Your task to perform on an android device: Open battery settings Image 0: 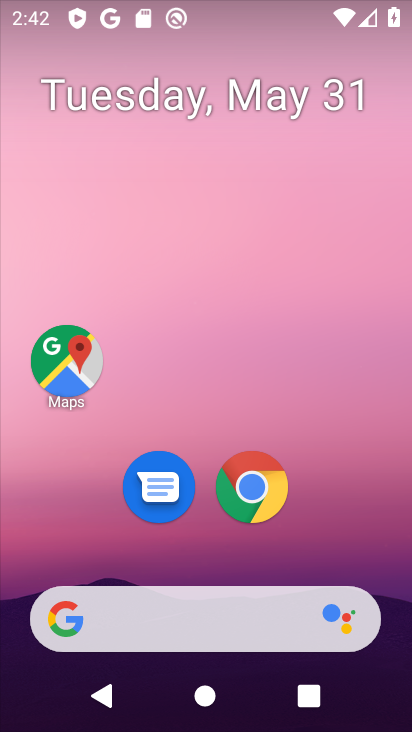
Step 0: drag from (84, 598) to (167, 189)
Your task to perform on an android device: Open battery settings Image 1: 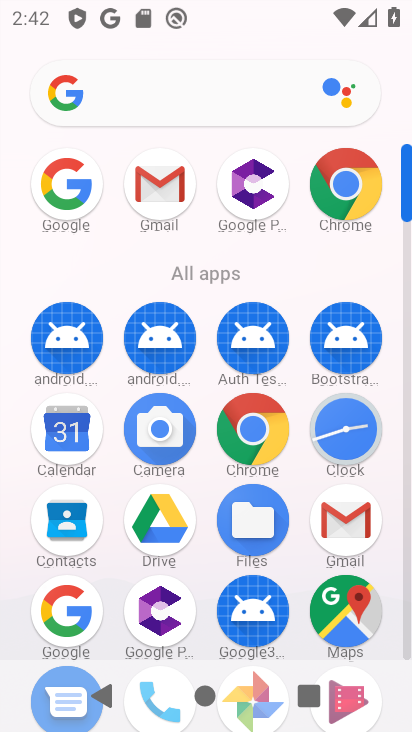
Step 1: drag from (189, 546) to (257, 334)
Your task to perform on an android device: Open battery settings Image 2: 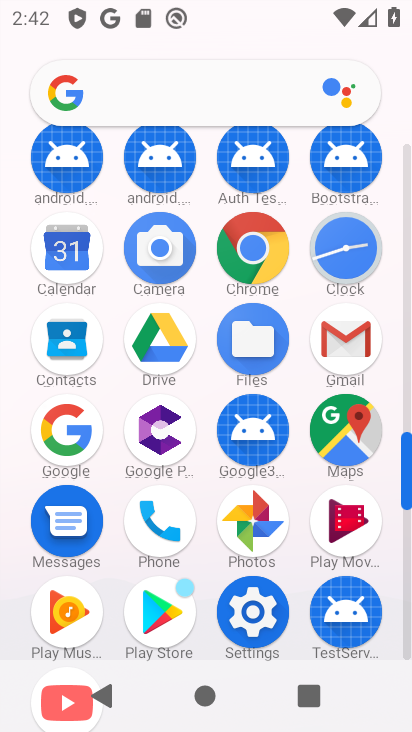
Step 2: click (274, 621)
Your task to perform on an android device: Open battery settings Image 3: 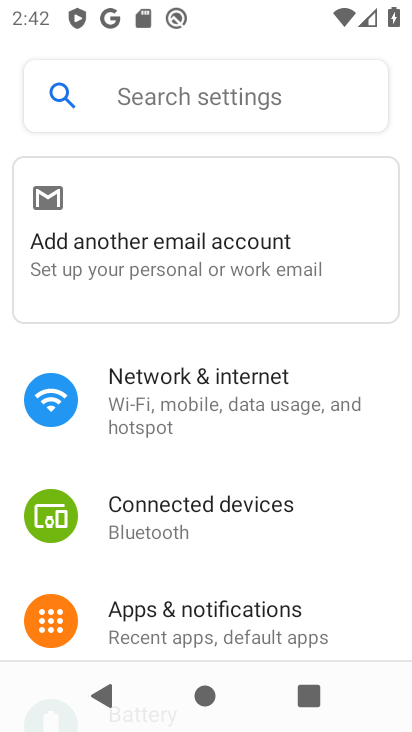
Step 3: drag from (195, 583) to (323, 157)
Your task to perform on an android device: Open battery settings Image 4: 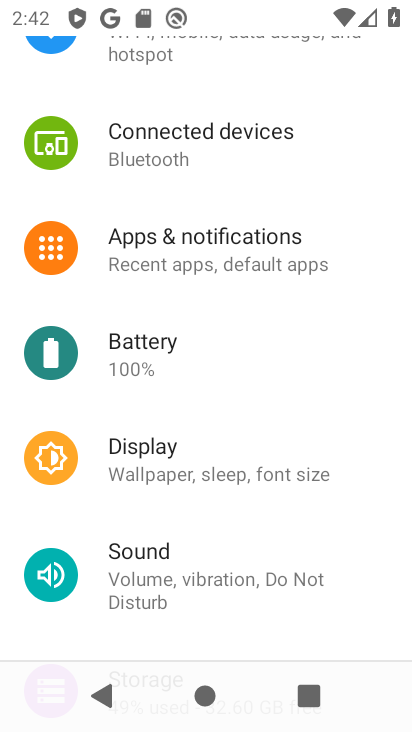
Step 4: drag from (215, 573) to (279, 288)
Your task to perform on an android device: Open battery settings Image 5: 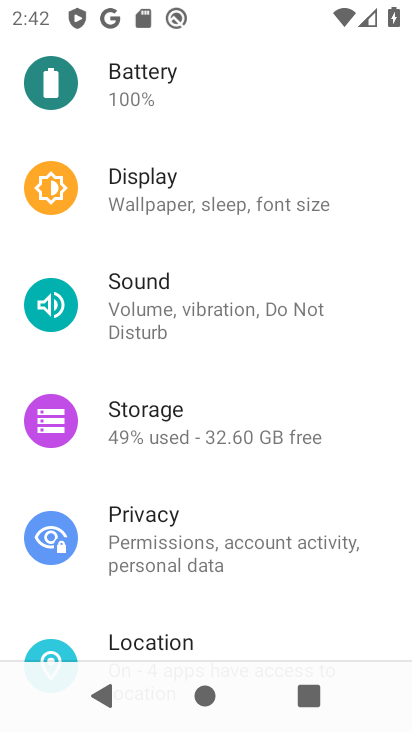
Step 5: click (177, 120)
Your task to perform on an android device: Open battery settings Image 6: 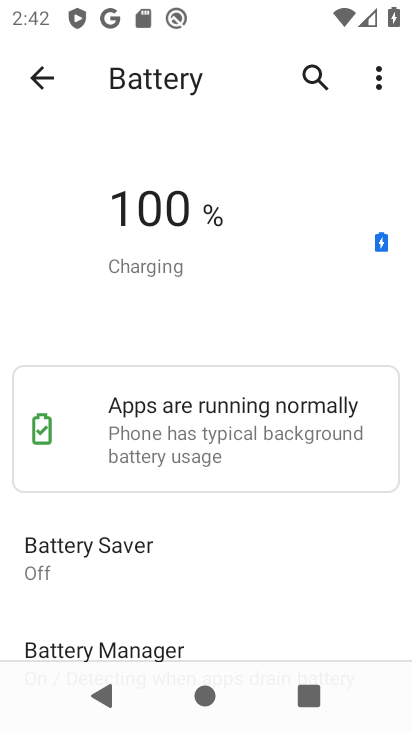
Step 6: task complete